Your task to perform on an android device: toggle translation in the chrome app Image 0: 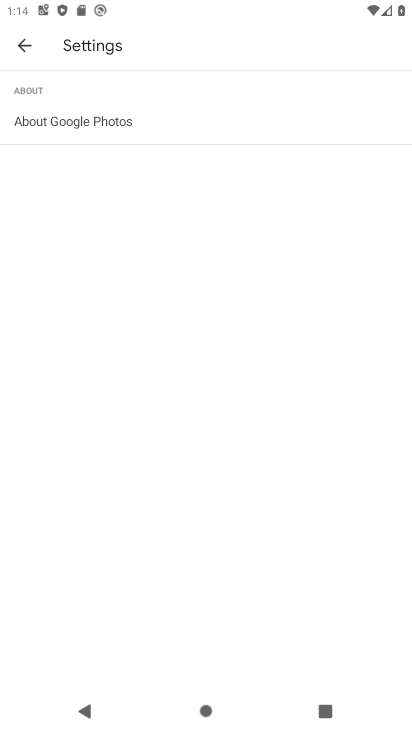
Step 0: press home button
Your task to perform on an android device: toggle translation in the chrome app Image 1: 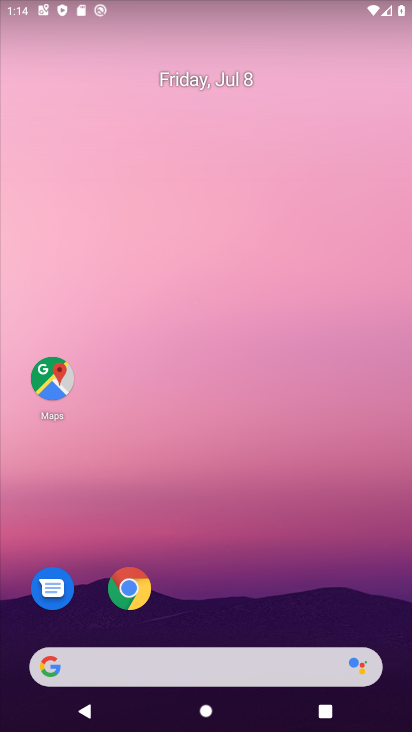
Step 1: drag from (242, 594) to (243, 205)
Your task to perform on an android device: toggle translation in the chrome app Image 2: 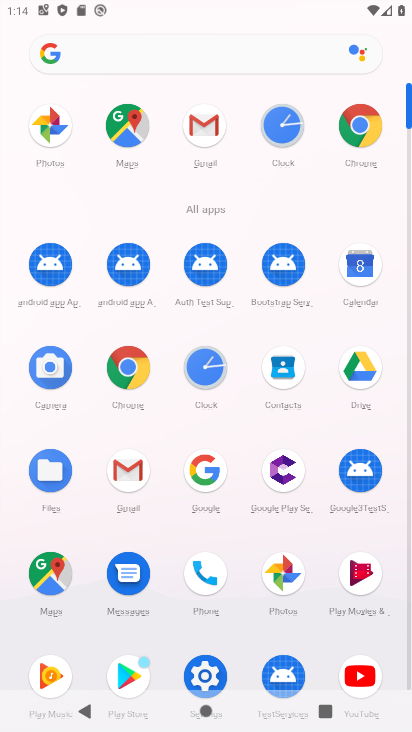
Step 2: click (139, 371)
Your task to perform on an android device: toggle translation in the chrome app Image 3: 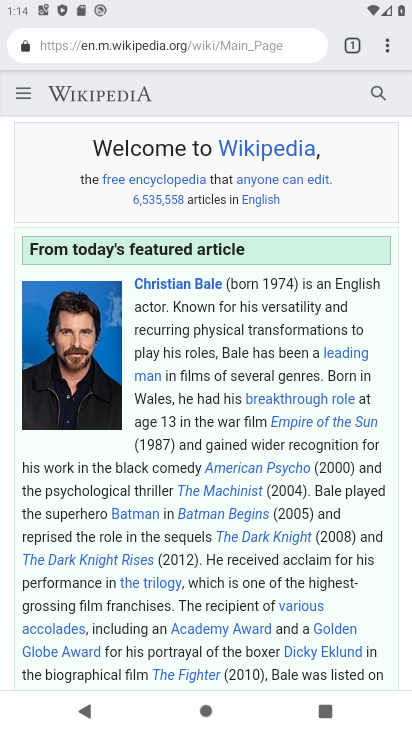
Step 3: drag from (392, 38) to (263, 532)
Your task to perform on an android device: toggle translation in the chrome app Image 4: 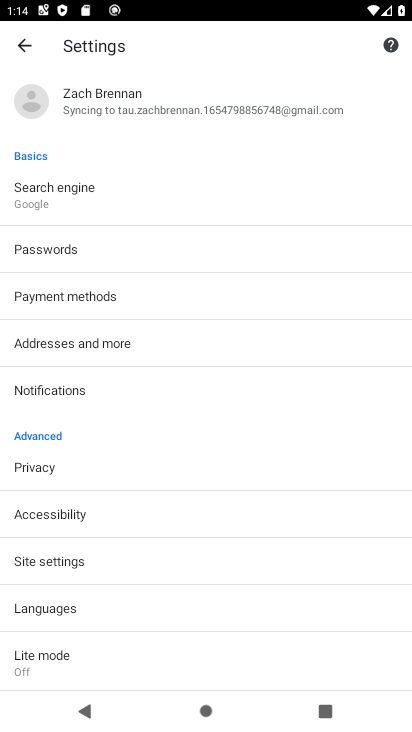
Step 4: click (77, 603)
Your task to perform on an android device: toggle translation in the chrome app Image 5: 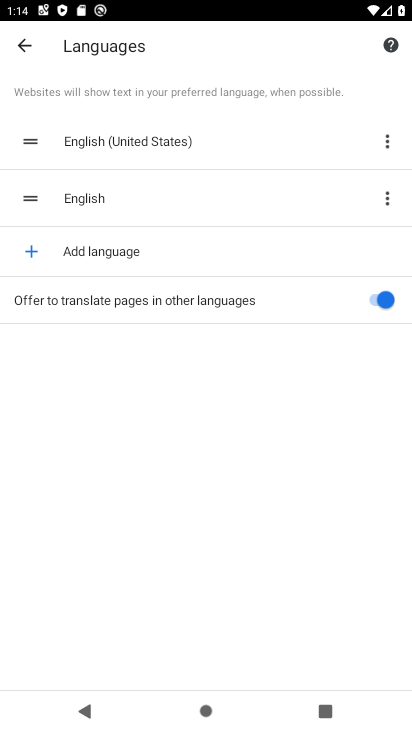
Step 5: click (380, 310)
Your task to perform on an android device: toggle translation in the chrome app Image 6: 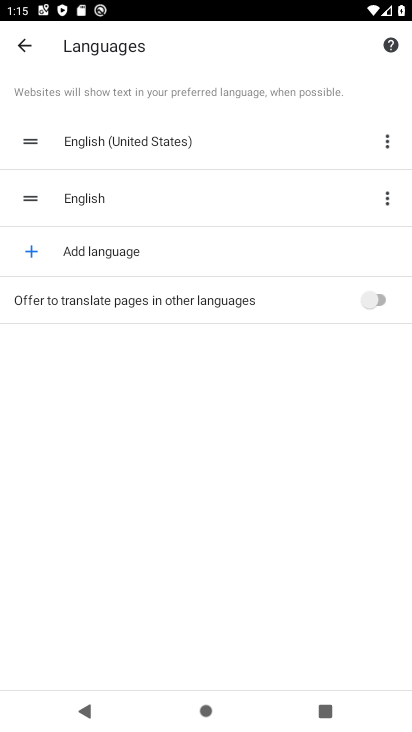
Step 6: task complete